Your task to perform on an android device: turn pop-ups on in chrome Image 0: 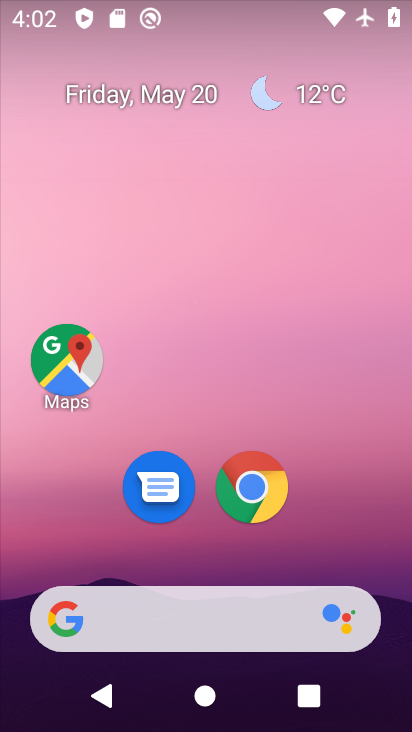
Step 0: click (255, 501)
Your task to perform on an android device: turn pop-ups on in chrome Image 1: 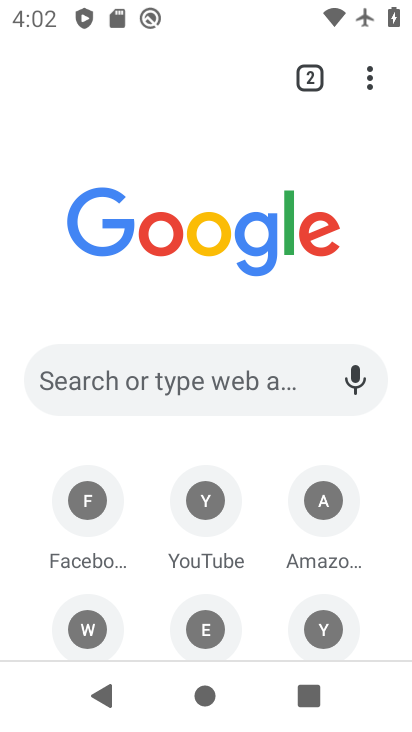
Step 1: click (367, 85)
Your task to perform on an android device: turn pop-ups on in chrome Image 2: 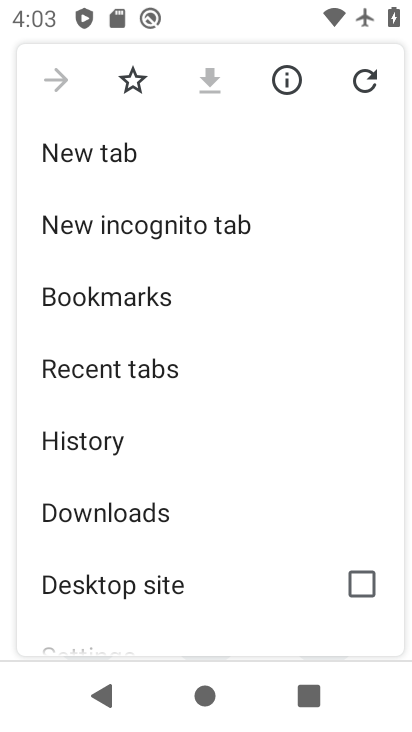
Step 2: drag from (147, 558) to (143, 235)
Your task to perform on an android device: turn pop-ups on in chrome Image 3: 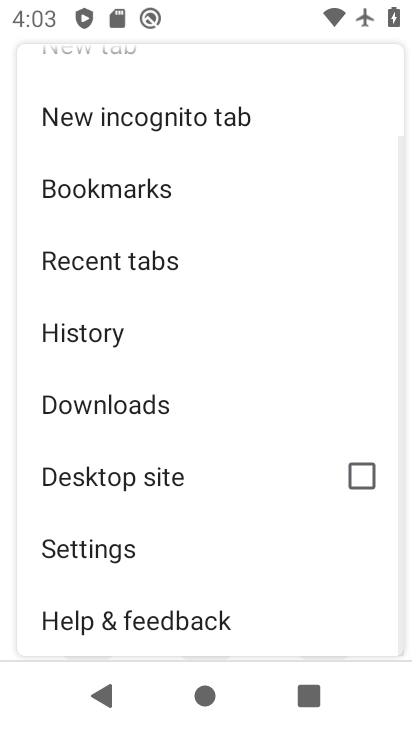
Step 3: click (113, 548)
Your task to perform on an android device: turn pop-ups on in chrome Image 4: 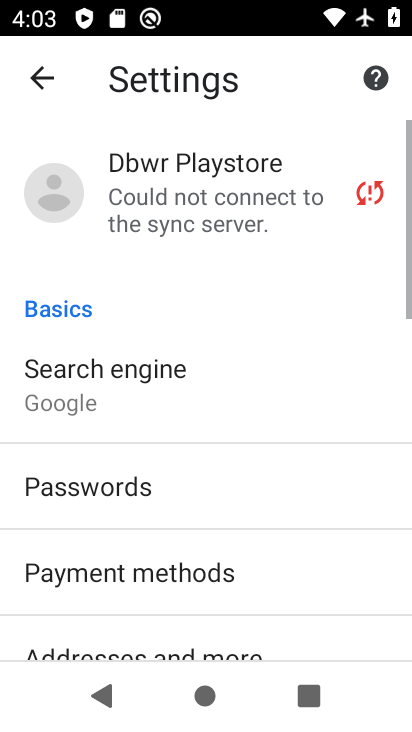
Step 4: drag from (154, 600) to (180, 334)
Your task to perform on an android device: turn pop-ups on in chrome Image 5: 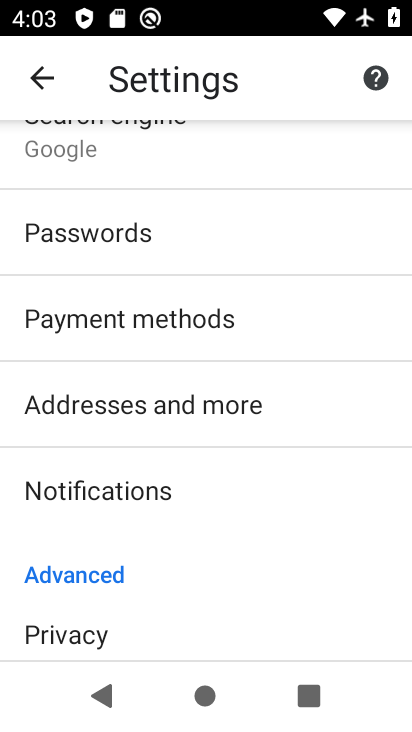
Step 5: drag from (182, 629) to (218, 340)
Your task to perform on an android device: turn pop-ups on in chrome Image 6: 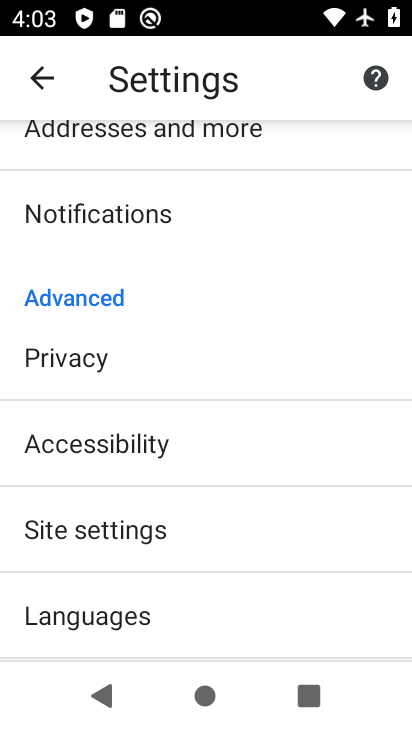
Step 6: click (139, 532)
Your task to perform on an android device: turn pop-ups on in chrome Image 7: 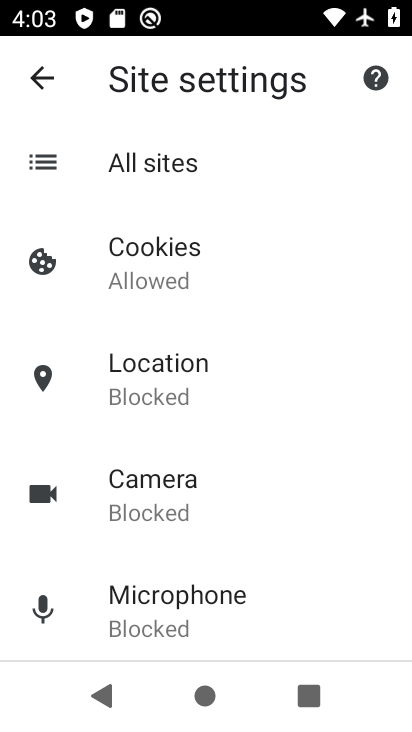
Step 7: drag from (155, 571) to (208, 184)
Your task to perform on an android device: turn pop-ups on in chrome Image 8: 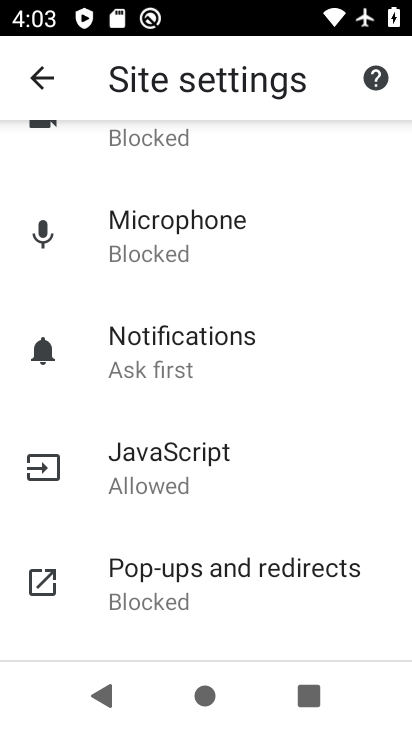
Step 8: click (191, 590)
Your task to perform on an android device: turn pop-ups on in chrome Image 9: 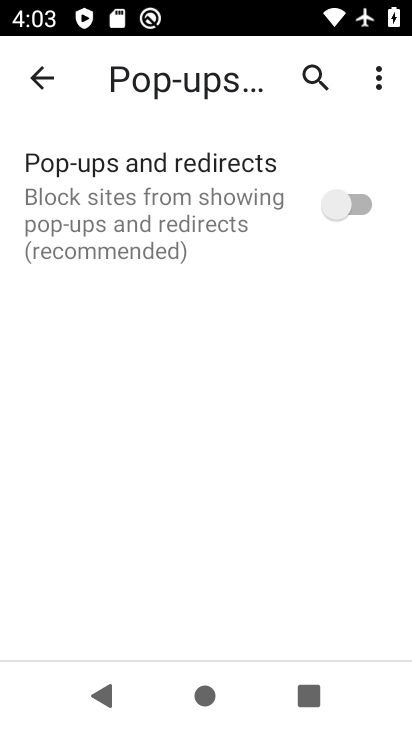
Step 9: click (353, 229)
Your task to perform on an android device: turn pop-ups on in chrome Image 10: 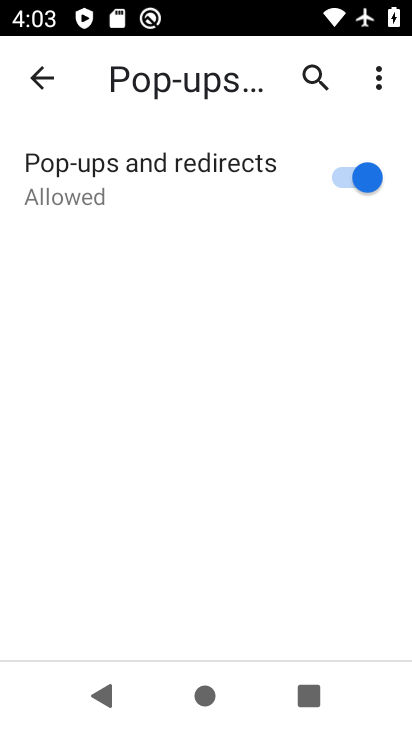
Step 10: task complete